Your task to perform on an android device: toggle data saver in the chrome app Image 0: 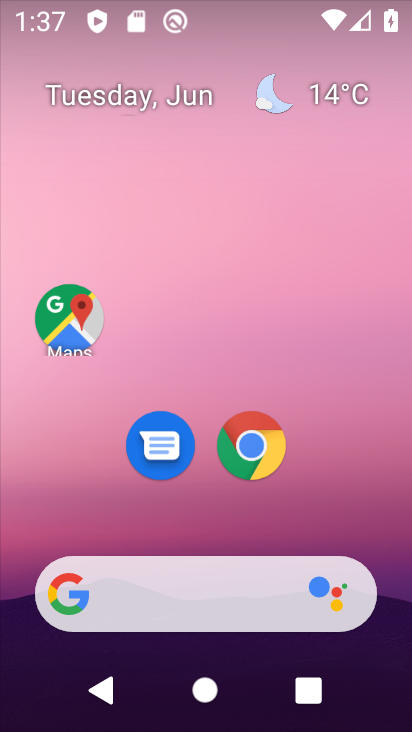
Step 0: drag from (368, 502) to (353, 156)
Your task to perform on an android device: toggle data saver in the chrome app Image 1: 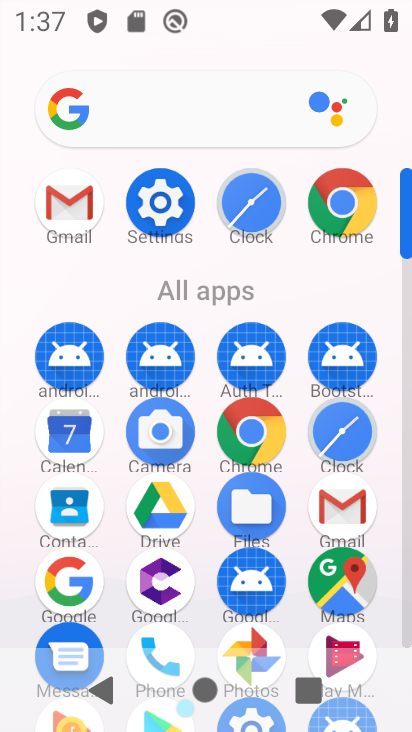
Step 1: click (261, 436)
Your task to perform on an android device: toggle data saver in the chrome app Image 2: 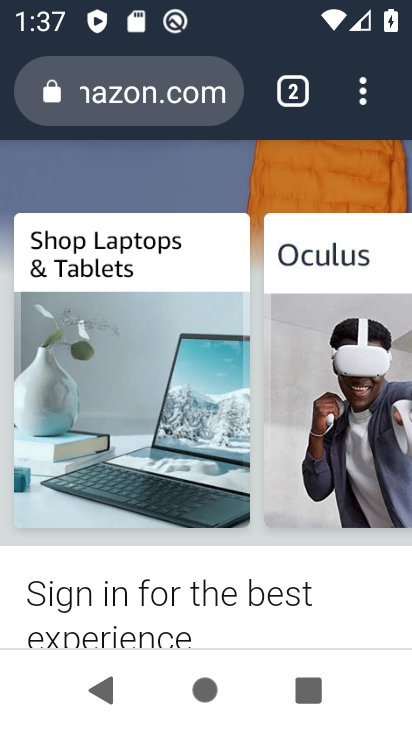
Step 2: drag from (364, 101) to (197, 479)
Your task to perform on an android device: toggle data saver in the chrome app Image 3: 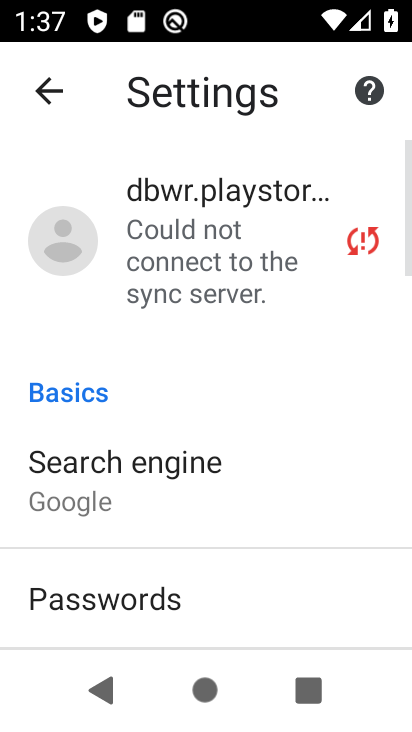
Step 3: drag from (257, 587) to (258, 250)
Your task to perform on an android device: toggle data saver in the chrome app Image 4: 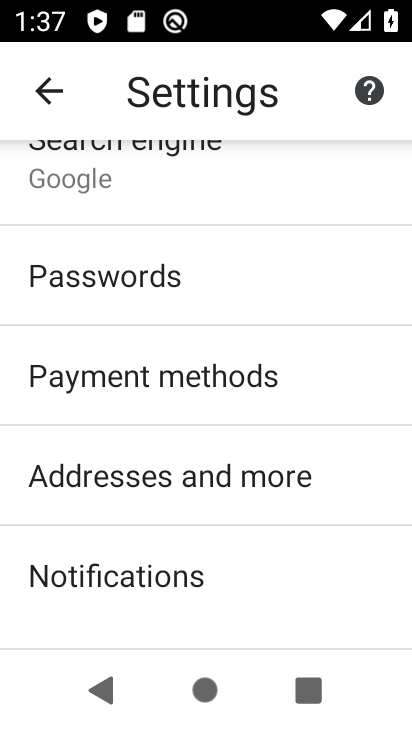
Step 4: drag from (272, 579) to (275, 226)
Your task to perform on an android device: toggle data saver in the chrome app Image 5: 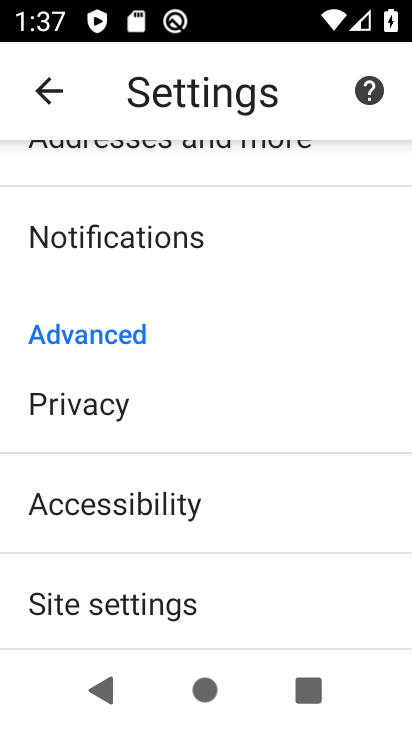
Step 5: drag from (275, 617) to (285, 258)
Your task to perform on an android device: toggle data saver in the chrome app Image 6: 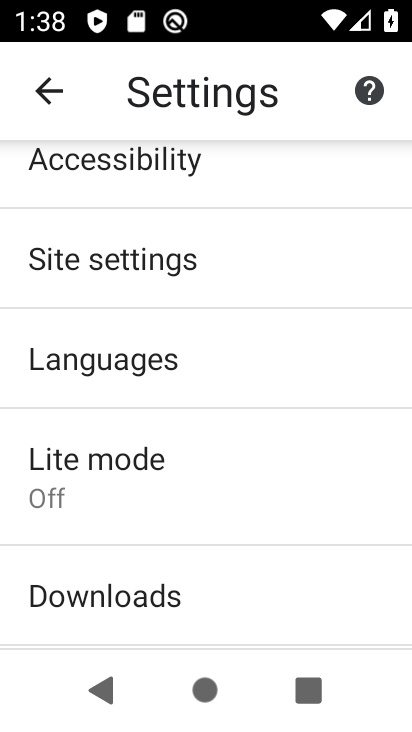
Step 6: click (147, 486)
Your task to perform on an android device: toggle data saver in the chrome app Image 7: 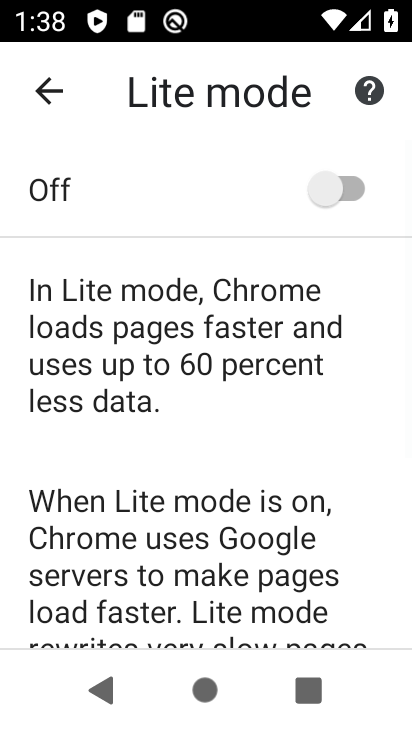
Step 7: click (344, 192)
Your task to perform on an android device: toggle data saver in the chrome app Image 8: 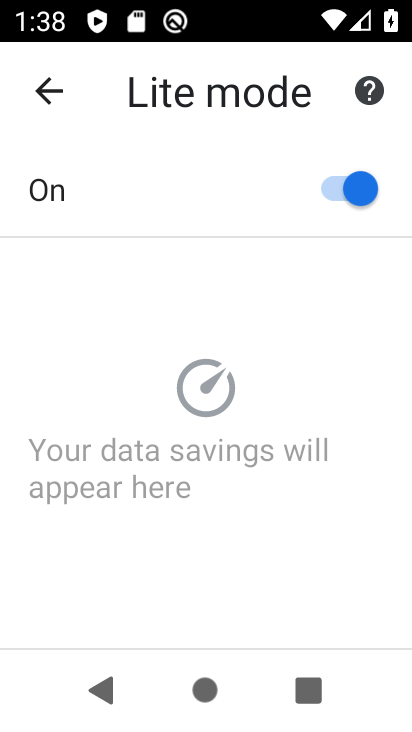
Step 8: task complete